Your task to perform on an android device: Open Google Image 0: 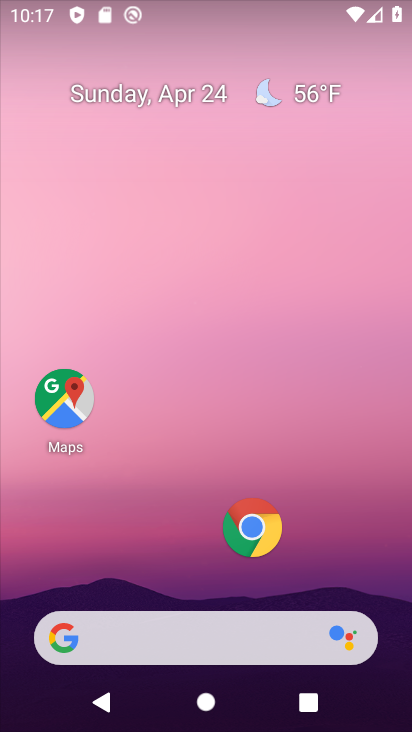
Step 0: click (177, 643)
Your task to perform on an android device: Open Google Image 1: 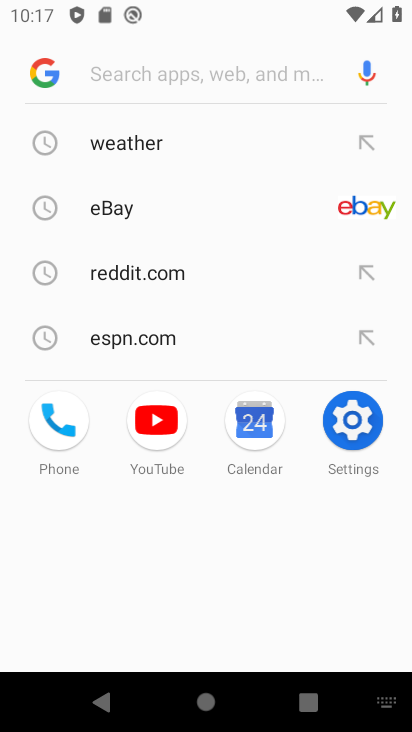
Step 1: click (47, 66)
Your task to perform on an android device: Open Google Image 2: 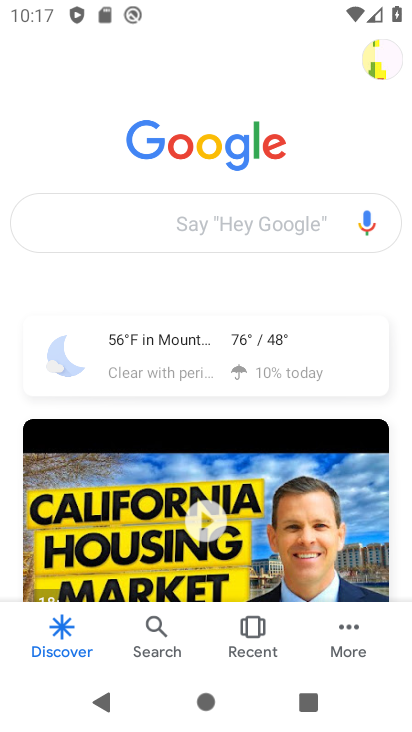
Step 2: task complete